Your task to perform on an android device: delete browsing data in the chrome app Image 0: 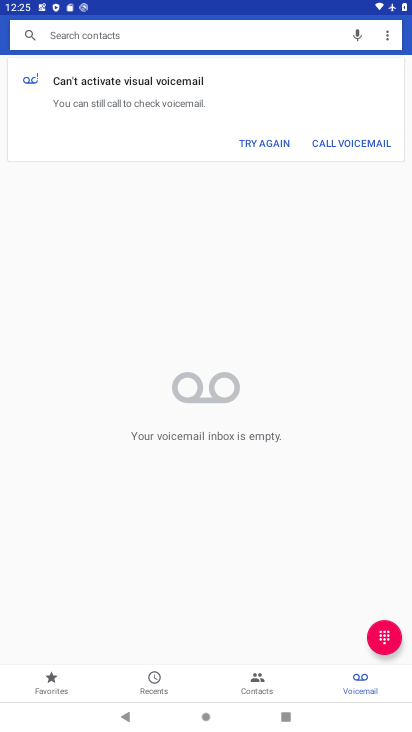
Step 0: task complete